Your task to perform on an android device: star an email in the gmail app Image 0: 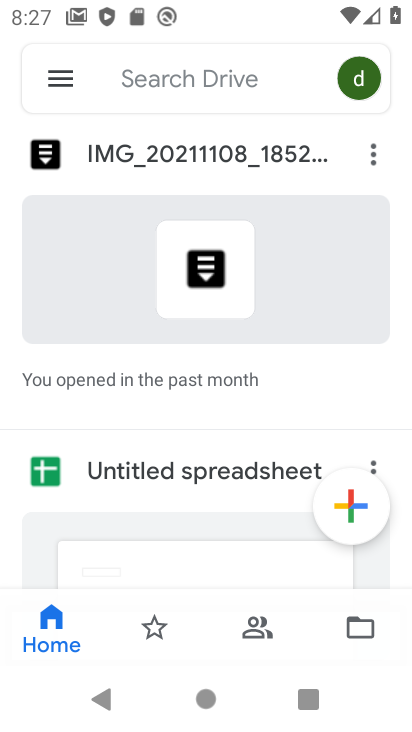
Step 0: press home button
Your task to perform on an android device: star an email in the gmail app Image 1: 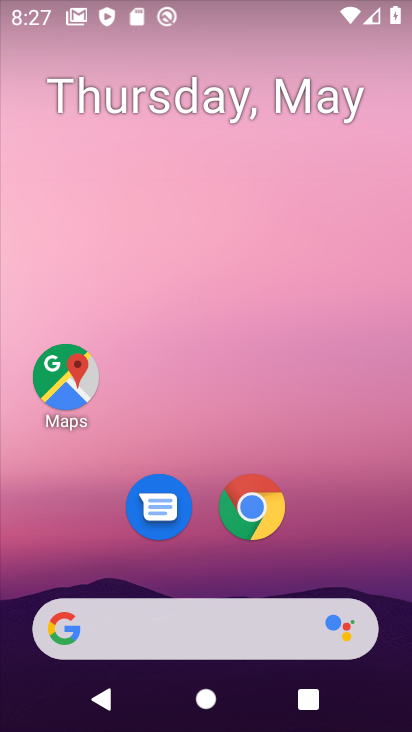
Step 1: drag from (258, 628) to (241, 102)
Your task to perform on an android device: star an email in the gmail app Image 2: 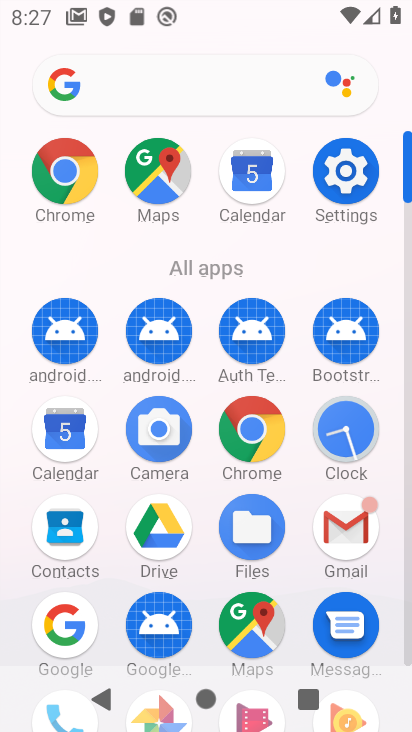
Step 2: click (347, 532)
Your task to perform on an android device: star an email in the gmail app Image 3: 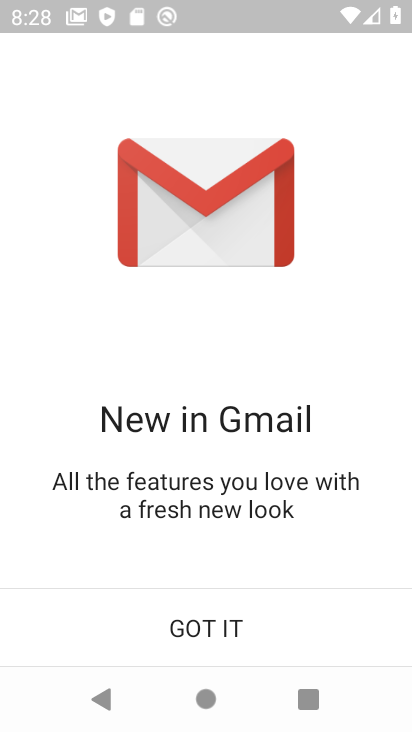
Step 3: click (236, 622)
Your task to perform on an android device: star an email in the gmail app Image 4: 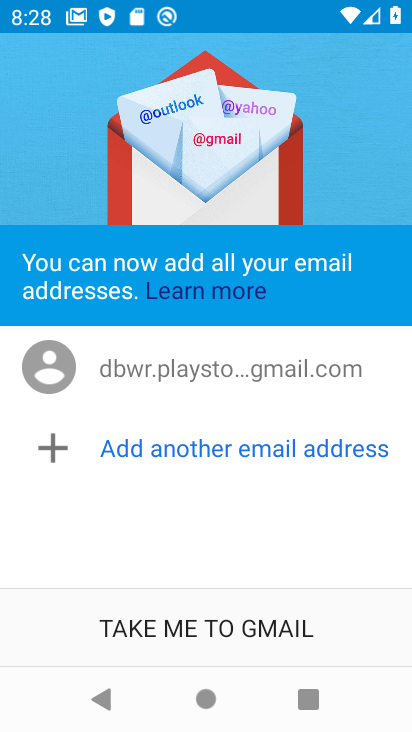
Step 4: click (256, 612)
Your task to perform on an android device: star an email in the gmail app Image 5: 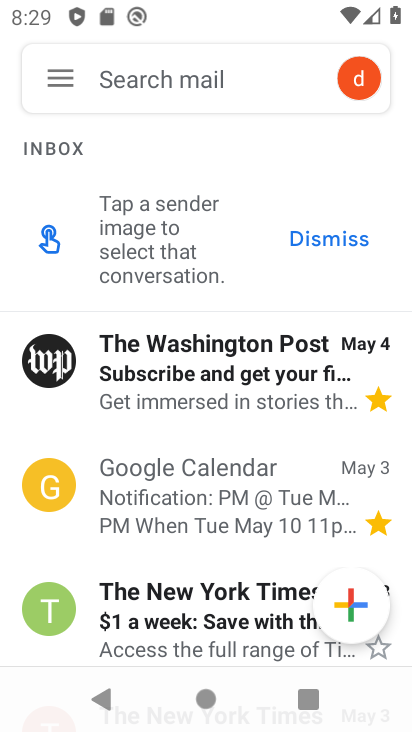
Step 5: drag from (237, 549) to (287, 191)
Your task to perform on an android device: star an email in the gmail app Image 6: 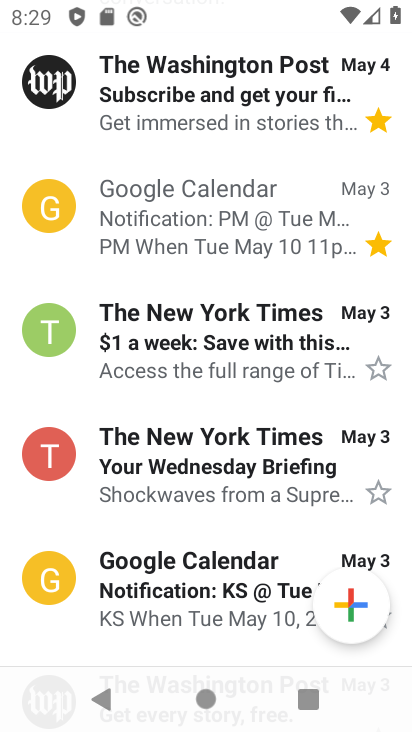
Step 6: click (380, 372)
Your task to perform on an android device: star an email in the gmail app Image 7: 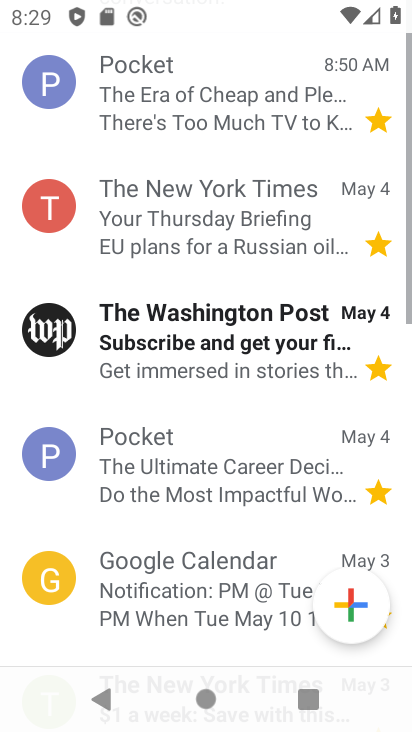
Step 7: task complete